Your task to perform on an android device: find photos in the google photos app Image 0: 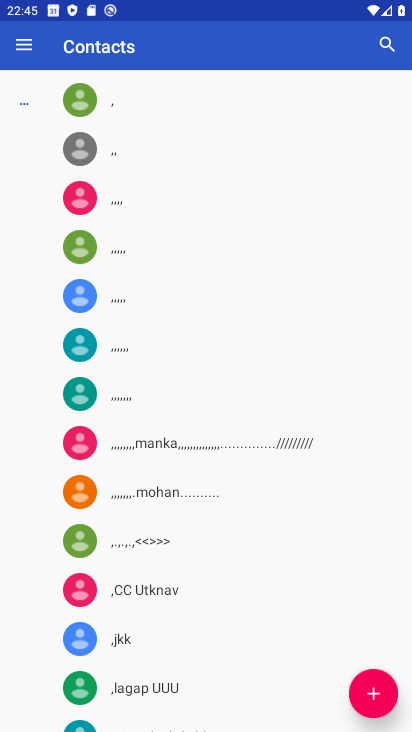
Step 0: press home button
Your task to perform on an android device: find photos in the google photos app Image 1: 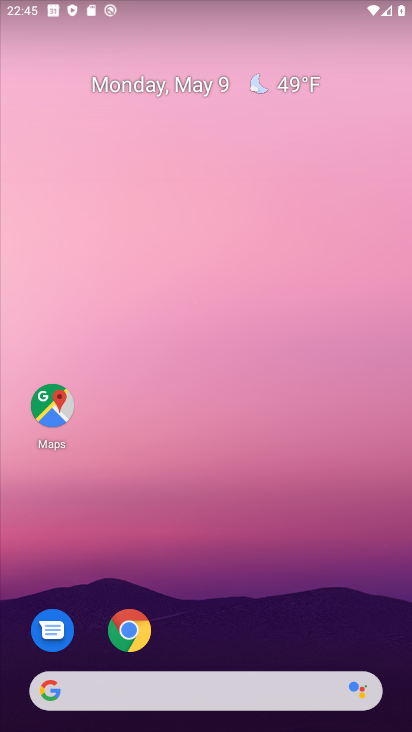
Step 1: drag from (180, 602) to (191, 244)
Your task to perform on an android device: find photos in the google photos app Image 2: 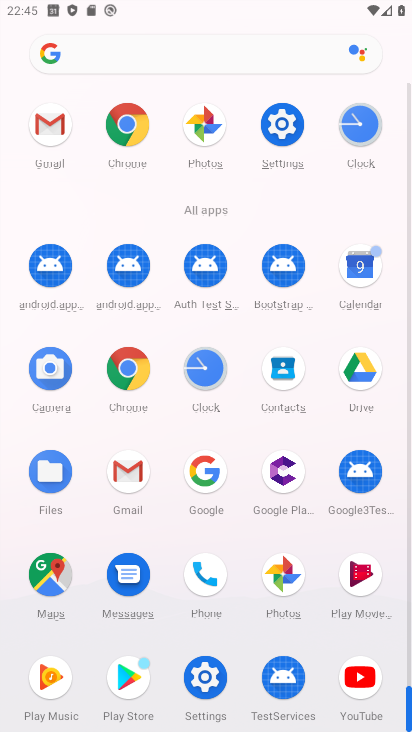
Step 2: click (204, 130)
Your task to perform on an android device: find photos in the google photos app Image 3: 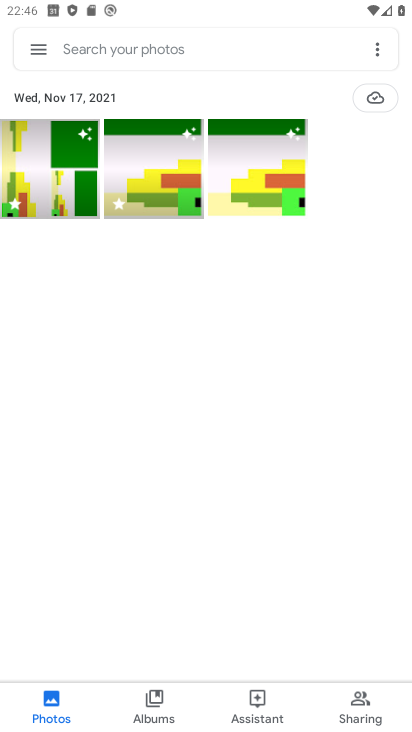
Step 3: click (153, 50)
Your task to perform on an android device: find photos in the google photos app Image 4: 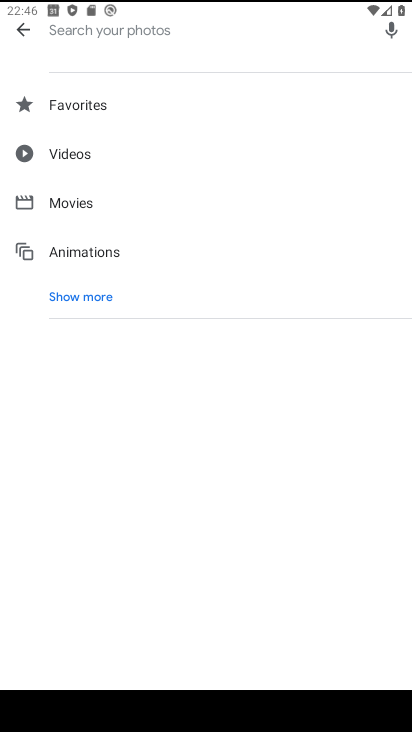
Step 4: type "aa"
Your task to perform on an android device: find photos in the google photos app Image 5: 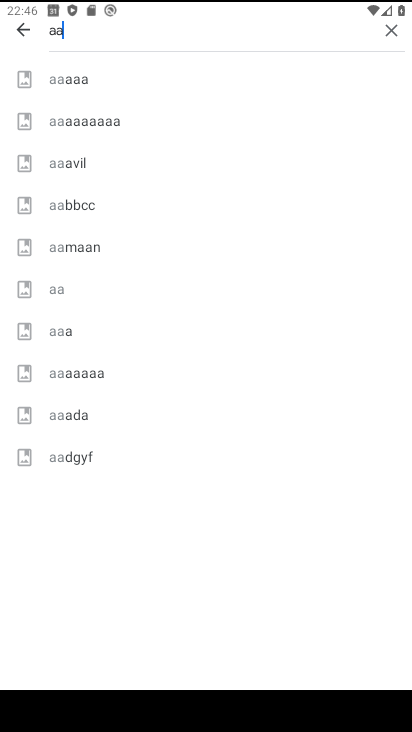
Step 5: click (94, 157)
Your task to perform on an android device: find photos in the google photos app Image 6: 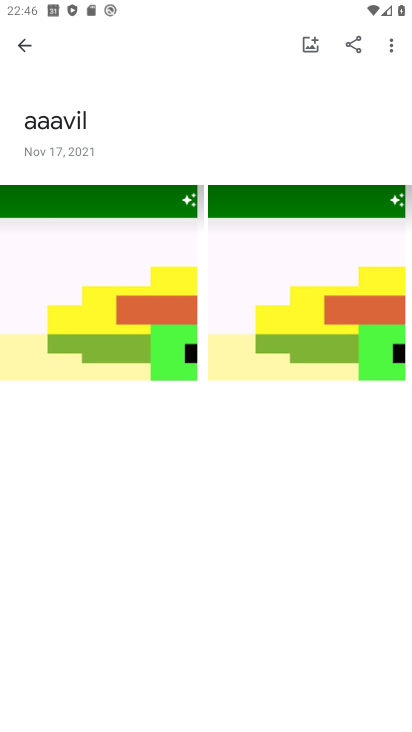
Step 6: task complete